Your task to perform on an android device: turn on the 24-hour format for clock Image 0: 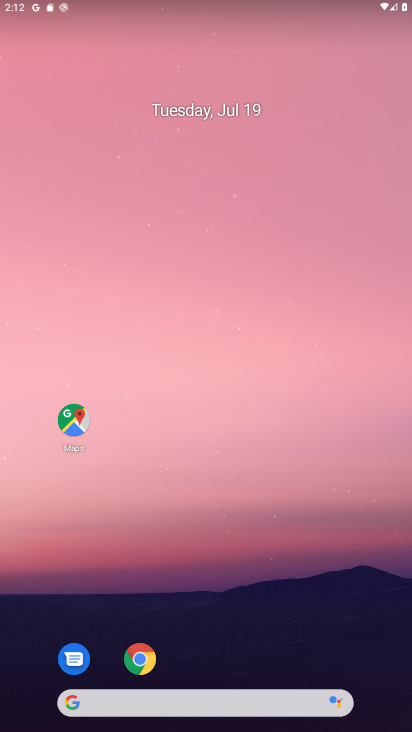
Step 0: drag from (195, 665) to (285, 81)
Your task to perform on an android device: turn on the 24-hour format for clock Image 1: 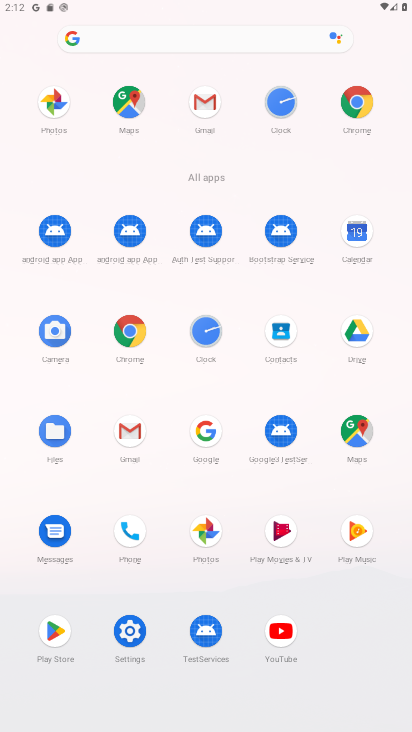
Step 1: click (206, 331)
Your task to perform on an android device: turn on the 24-hour format for clock Image 2: 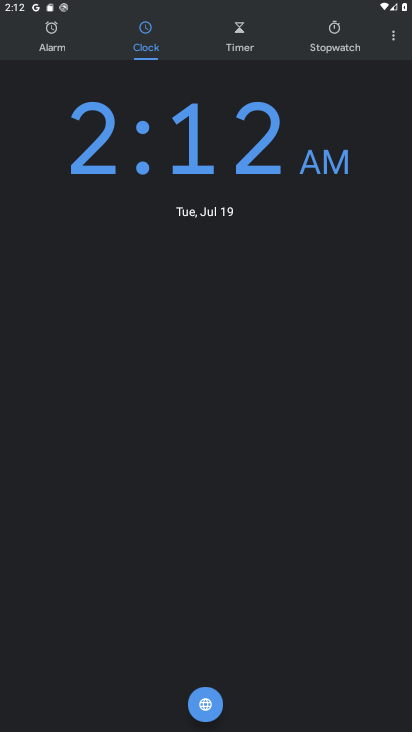
Step 2: click (393, 40)
Your task to perform on an android device: turn on the 24-hour format for clock Image 3: 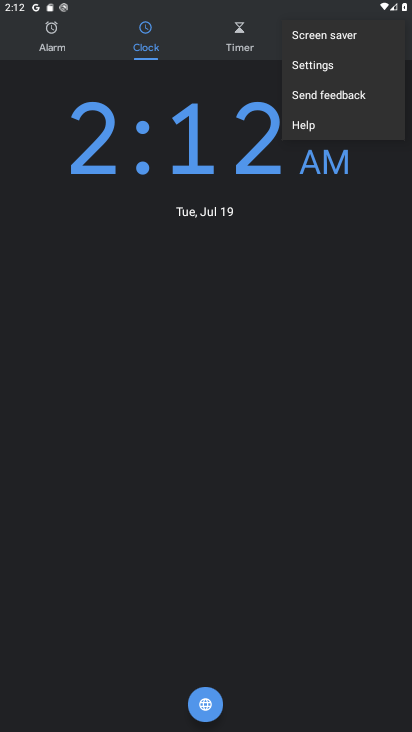
Step 3: click (296, 60)
Your task to perform on an android device: turn on the 24-hour format for clock Image 4: 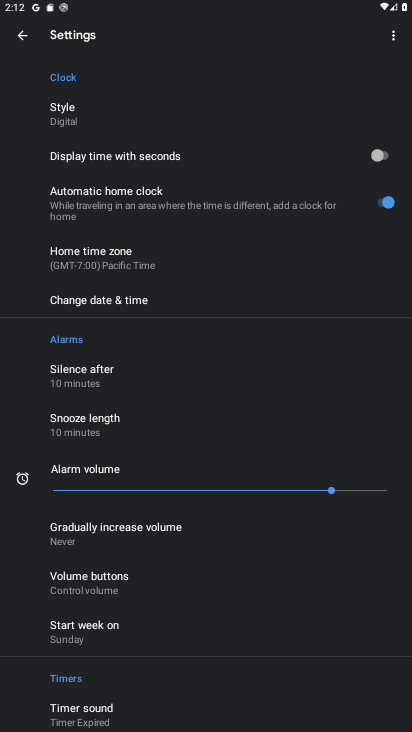
Step 4: drag from (180, 717) to (239, 152)
Your task to perform on an android device: turn on the 24-hour format for clock Image 5: 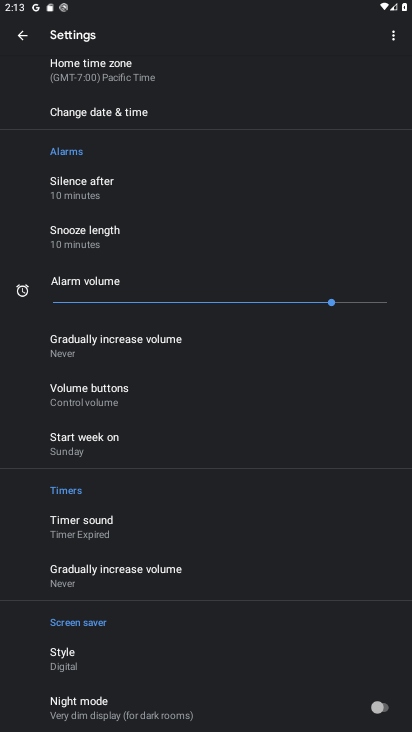
Step 5: drag from (126, 660) to (144, 260)
Your task to perform on an android device: turn on the 24-hour format for clock Image 6: 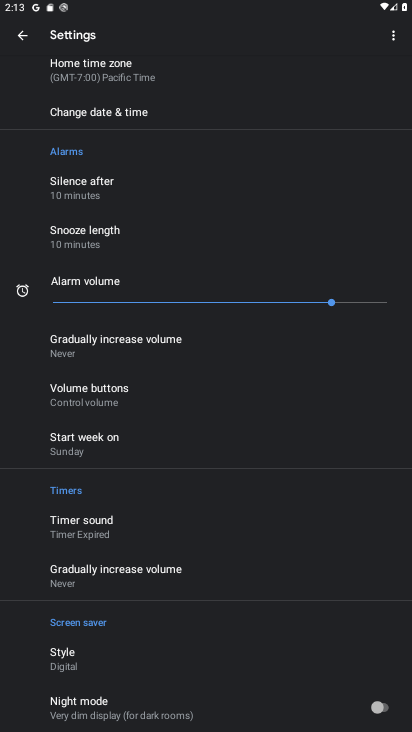
Step 6: drag from (108, 709) to (146, 397)
Your task to perform on an android device: turn on the 24-hour format for clock Image 7: 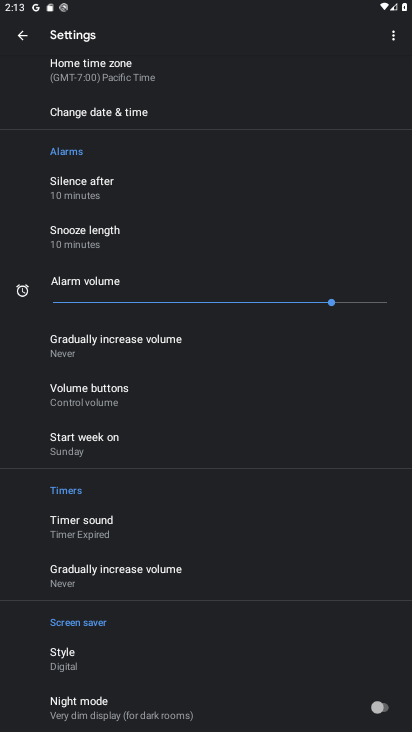
Step 7: click (87, 111)
Your task to perform on an android device: turn on the 24-hour format for clock Image 8: 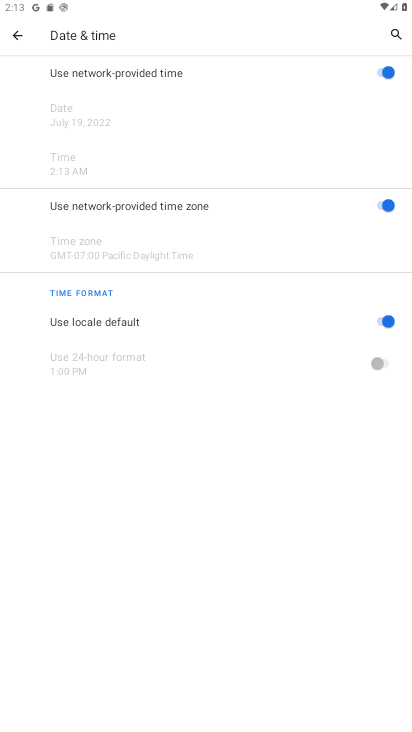
Step 8: click (382, 321)
Your task to perform on an android device: turn on the 24-hour format for clock Image 9: 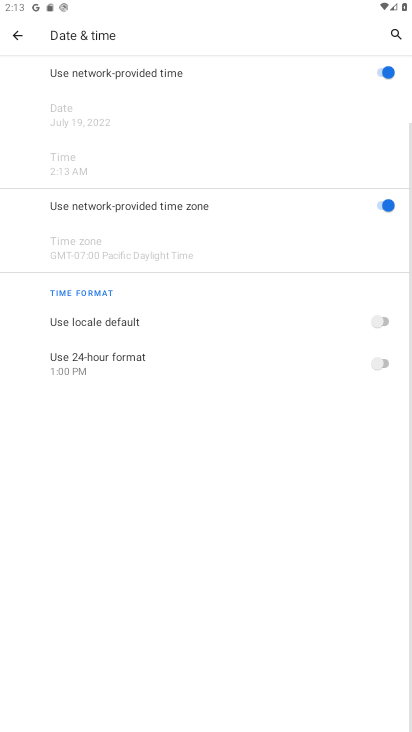
Step 9: click (386, 357)
Your task to perform on an android device: turn on the 24-hour format for clock Image 10: 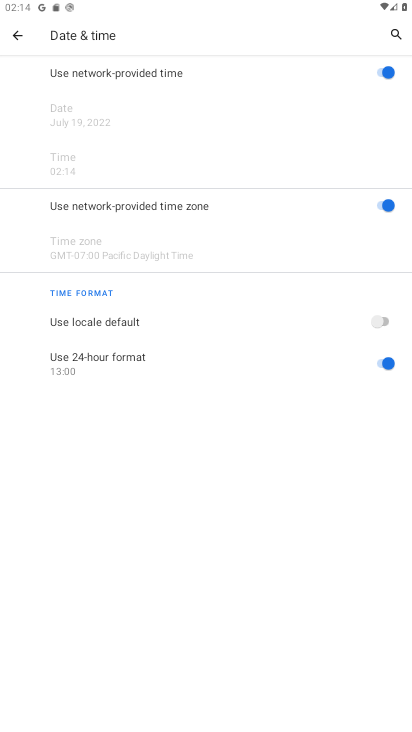
Step 10: task complete